Your task to perform on an android device: turn vacation reply on in the gmail app Image 0: 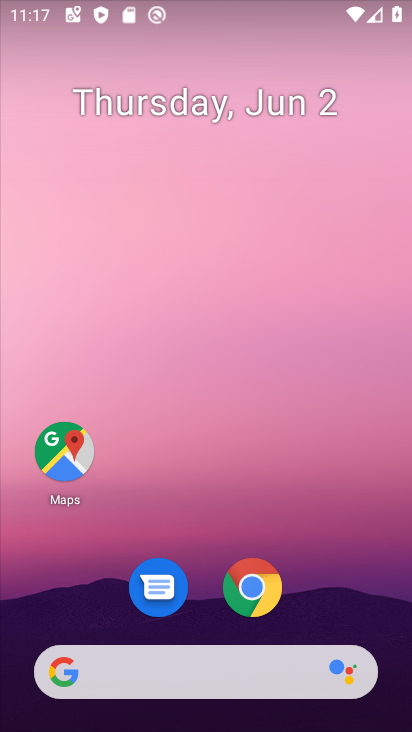
Step 0: drag from (389, 579) to (286, 6)
Your task to perform on an android device: turn vacation reply on in the gmail app Image 1: 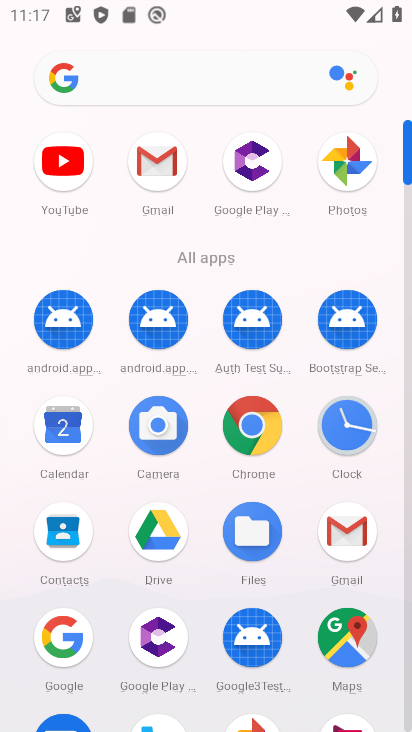
Step 1: click (150, 176)
Your task to perform on an android device: turn vacation reply on in the gmail app Image 2: 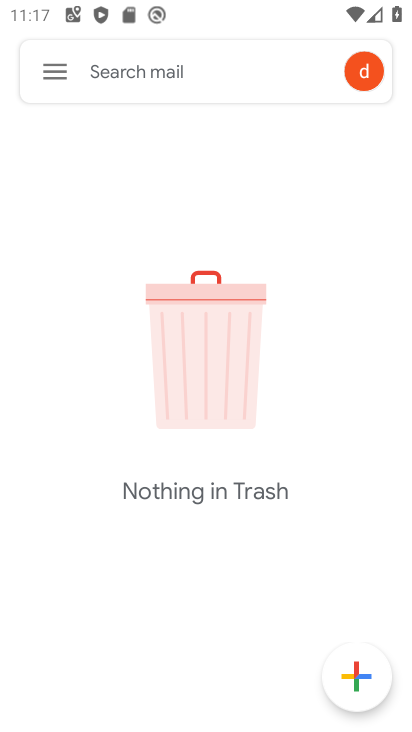
Step 2: click (60, 77)
Your task to perform on an android device: turn vacation reply on in the gmail app Image 3: 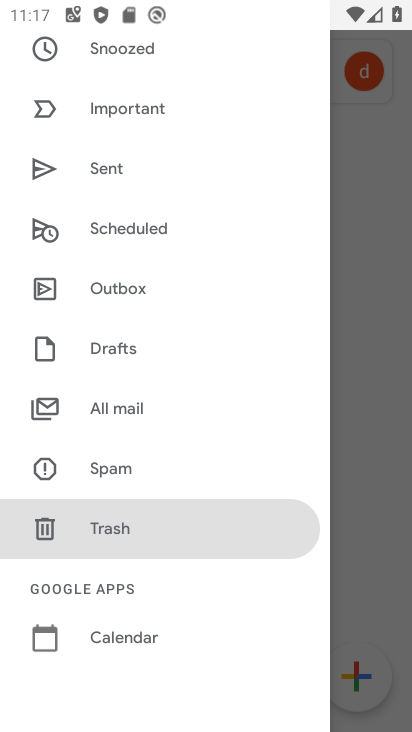
Step 3: drag from (148, 616) to (140, 150)
Your task to perform on an android device: turn vacation reply on in the gmail app Image 4: 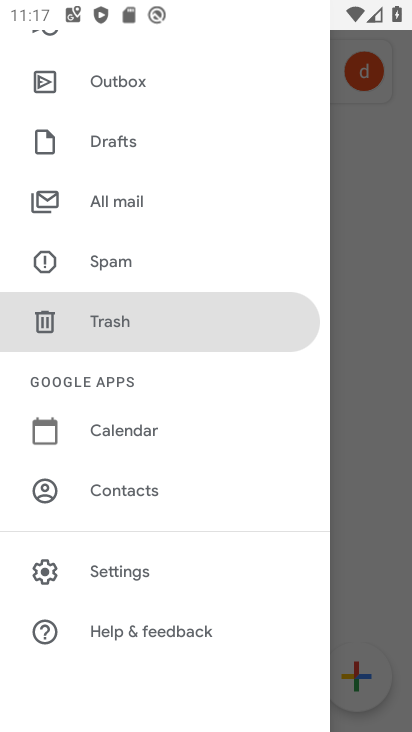
Step 4: click (207, 576)
Your task to perform on an android device: turn vacation reply on in the gmail app Image 5: 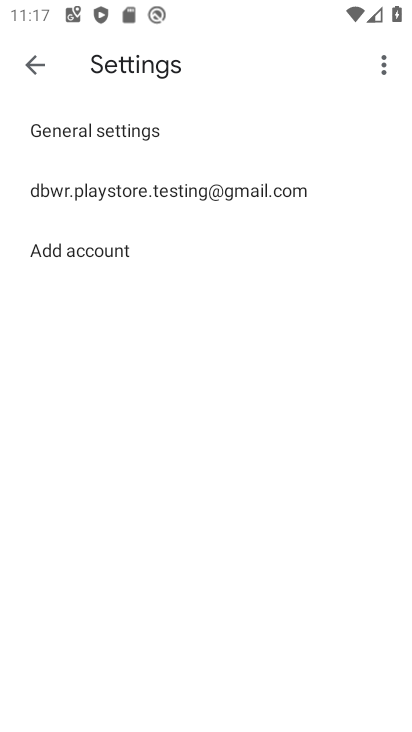
Step 5: click (227, 181)
Your task to perform on an android device: turn vacation reply on in the gmail app Image 6: 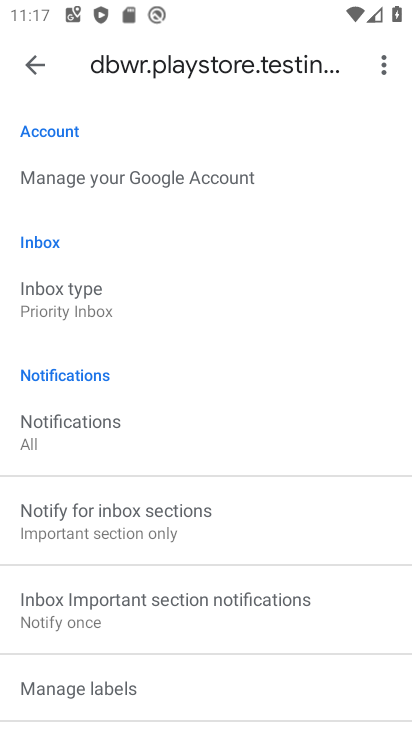
Step 6: drag from (221, 660) to (209, 239)
Your task to perform on an android device: turn vacation reply on in the gmail app Image 7: 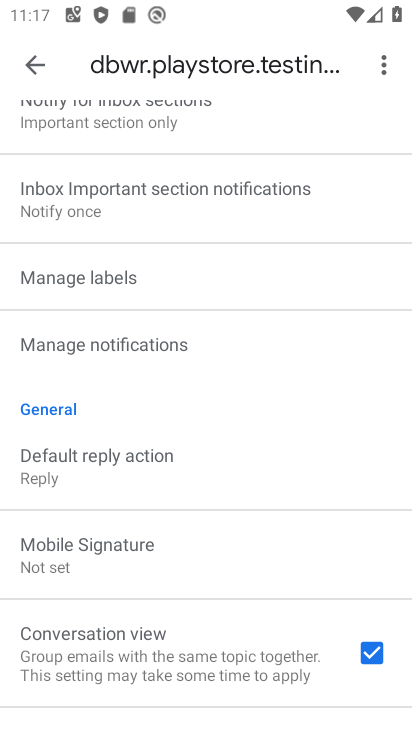
Step 7: drag from (256, 597) to (242, 201)
Your task to perform on an android device: turn vacation reply on in the gmail app Image 8: 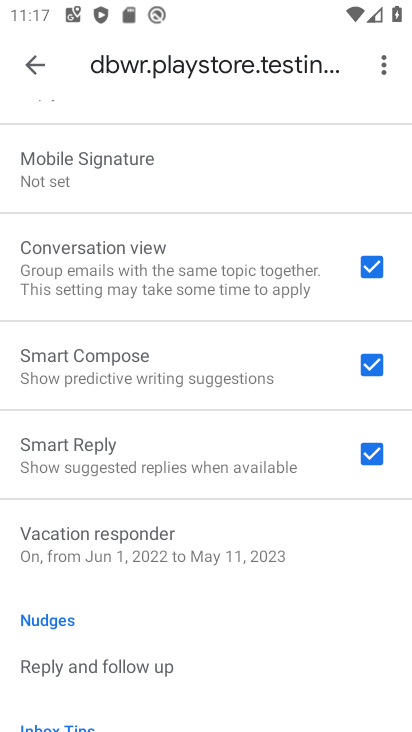
Step 8: drag from (213, 645) to (216, 432)
Your task to perform on an android device: turn vacation reply on in the gmail app Image 9: 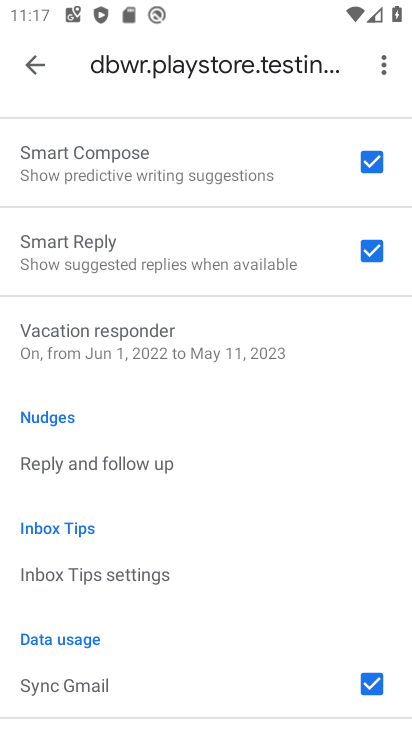
Step 9: click (216, 349)
Your task to perform on an android device: turn vacation reply on in the gmail app Image 10: 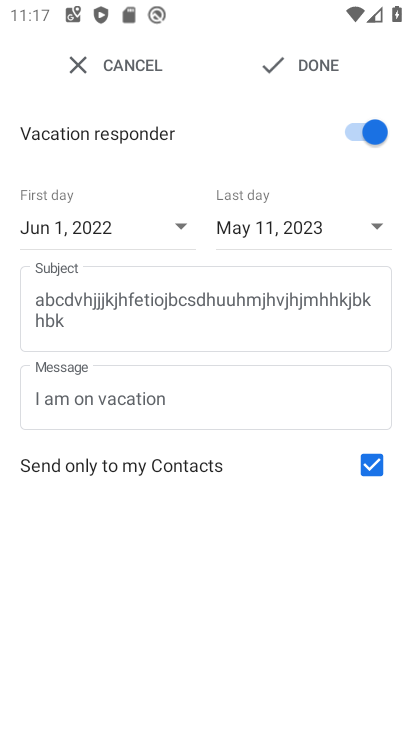
Step 10: click (313, 83)
Your task to perform on an android device: turn vacation reply on in the gmail app Image 11: 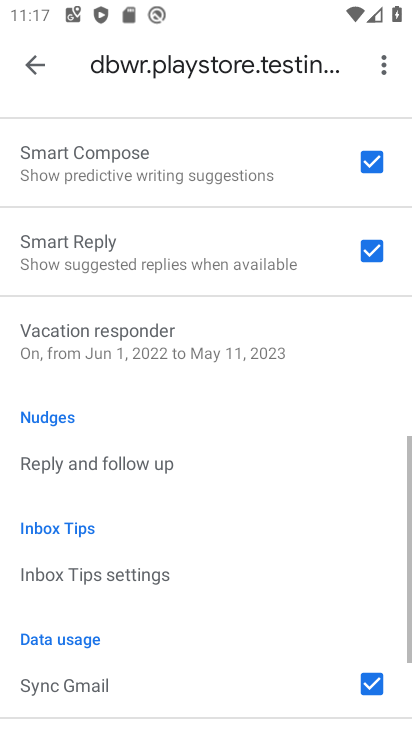
Step 11: task complete